Your task to perform on an android device: Do I have any events this weekend? Image 0: 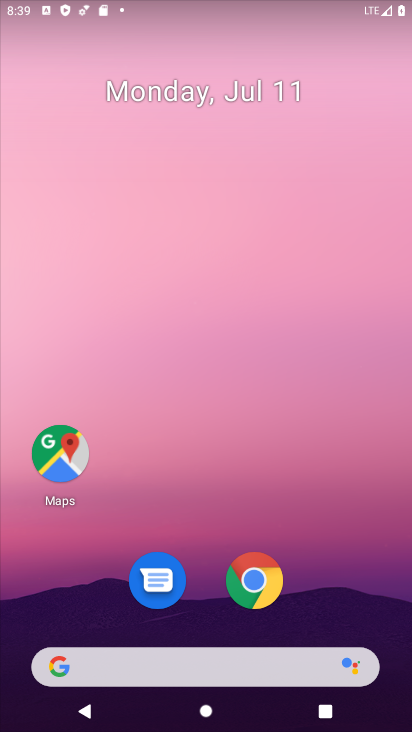
Step 0: drag from (316, 539) to (354, 17)
Your task to perform on an android device: Do I have any events this weekend? Image 1: 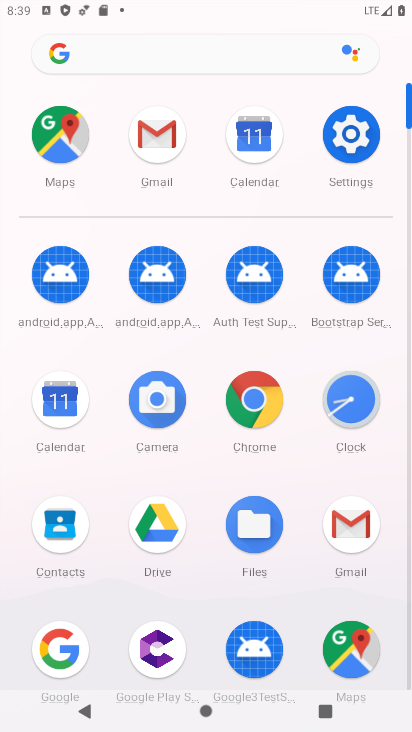
Step 1: click (64, 395)
Your task to perform on an android device: Do I have any events this weekend? Image 2: 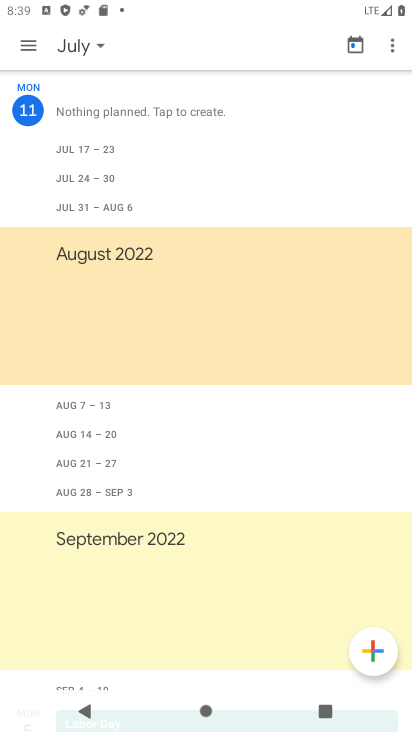
Step 2: task complete